Your task to perform on an android device: install app "Facebook" Image 0: 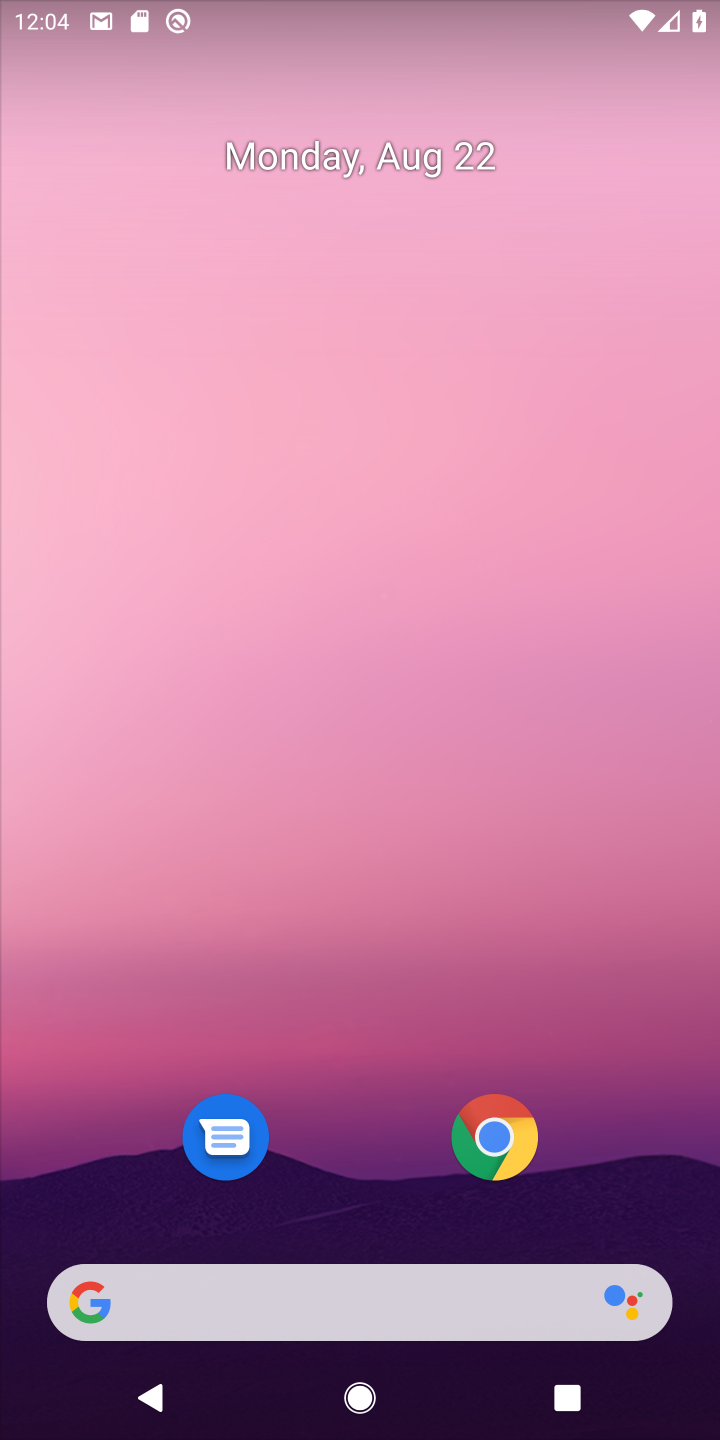
Step 0: drag from (607, 841) to (566, 148)
Your task to perform on an android device: install app "Facebook" Image 1: 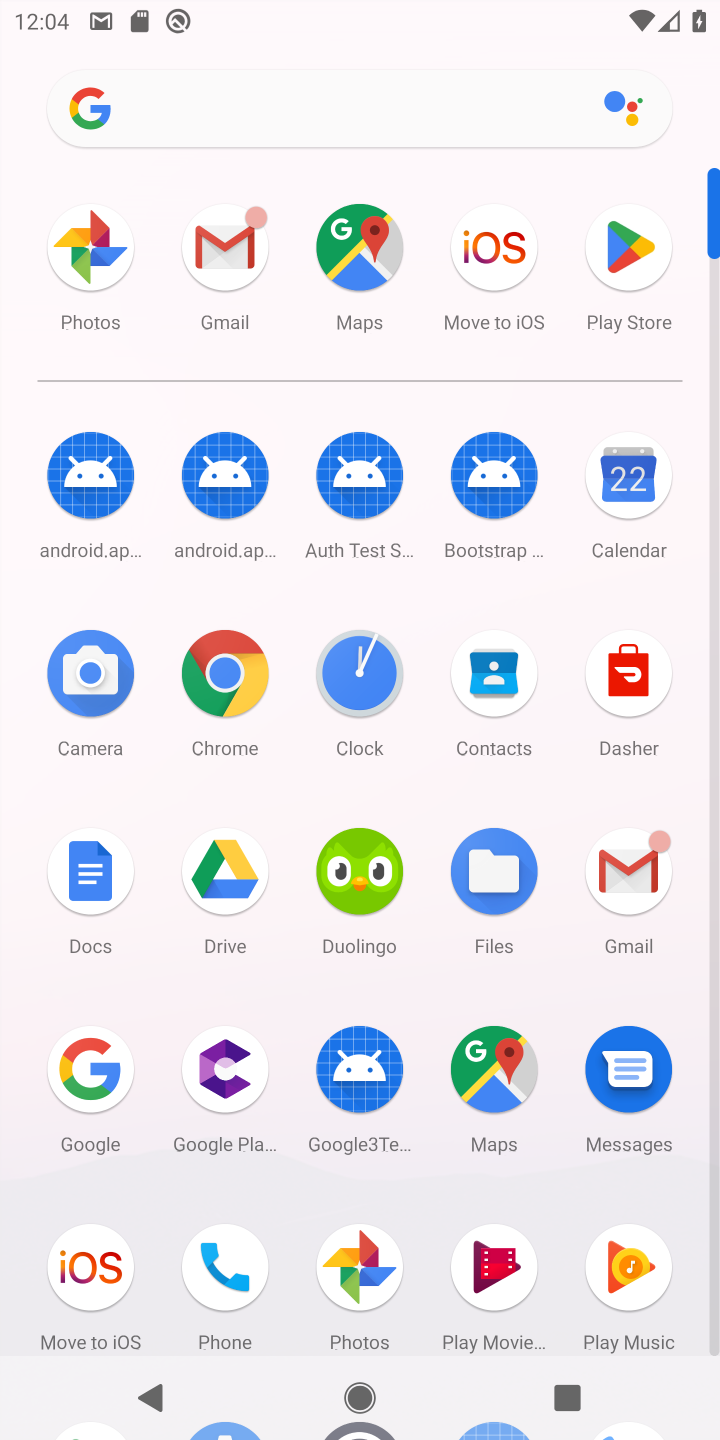
Step 1: drag from (285, 1198) to (286, 629)
Your task to perform on an android device: install app "Facebook" Image 2: 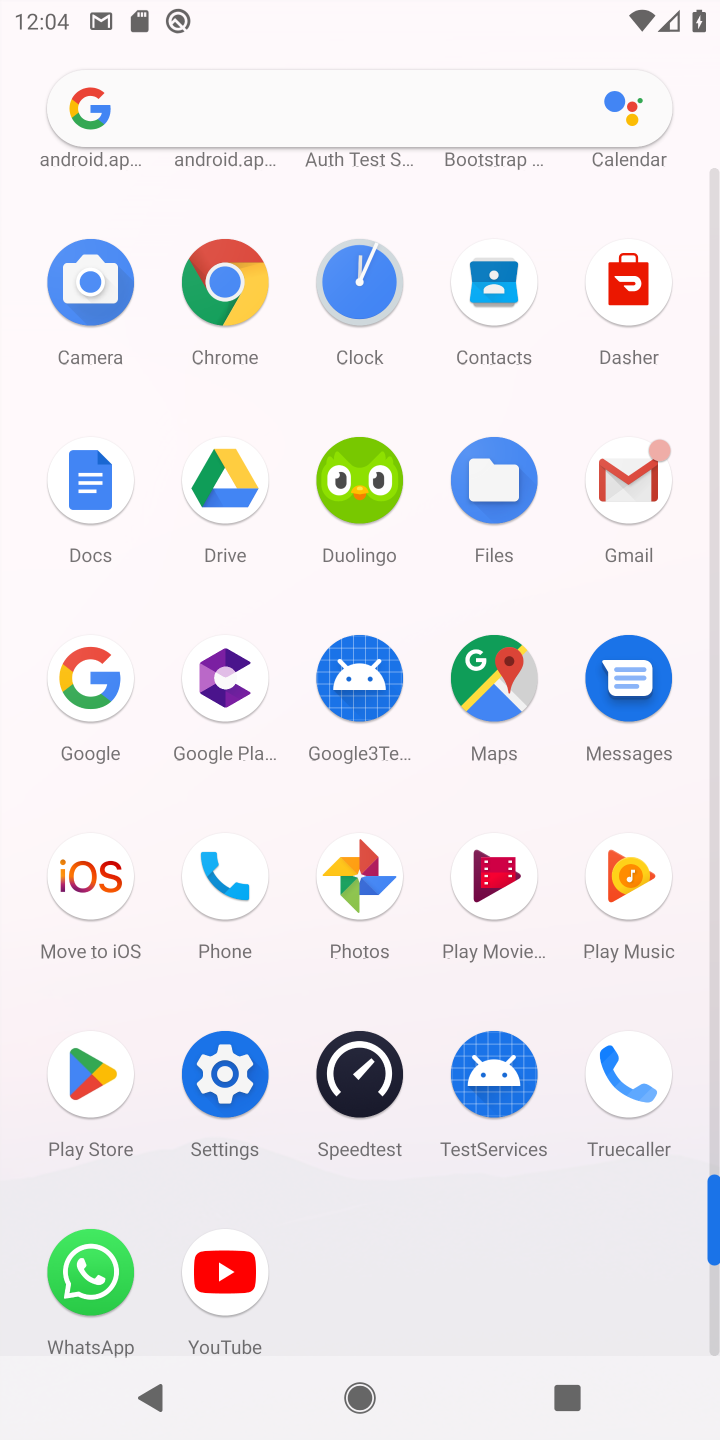
Step 2: click (95, 1075)
Your task to perform on an android device: install app "Facebook" Image 3: 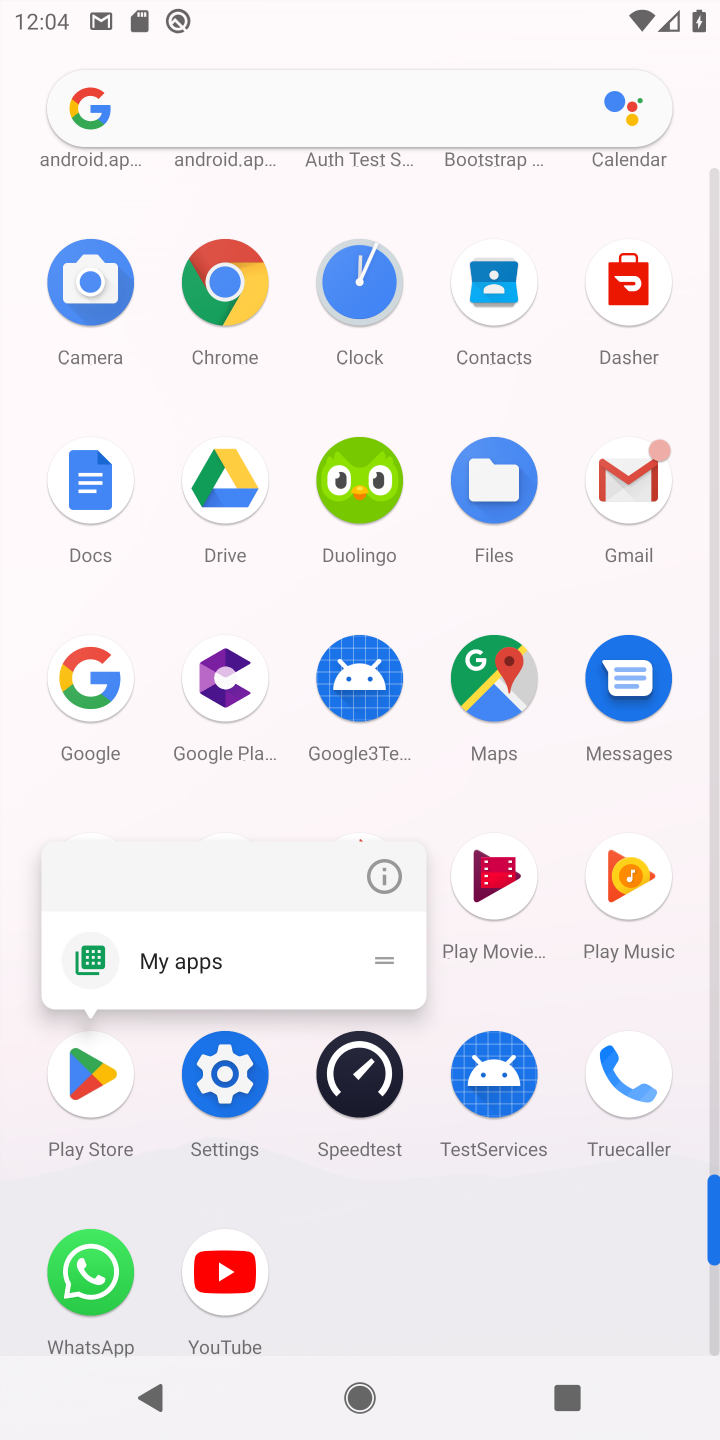
Step 3: click (86, 1075)
Your task to perform on an android device: install app "Facebook" Image 4: 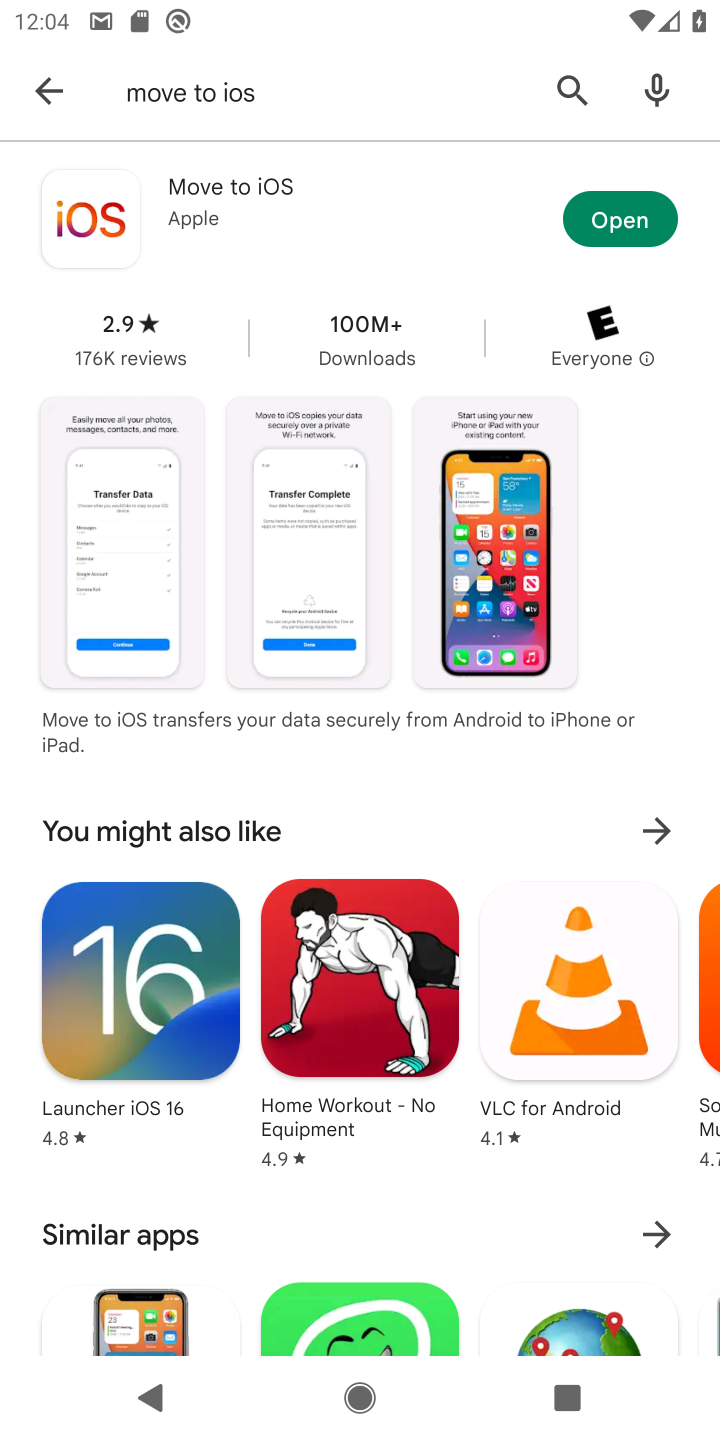
Step 4: click (569, 96)
Your task to perform on an android device: install app "Facebook" Image 5: 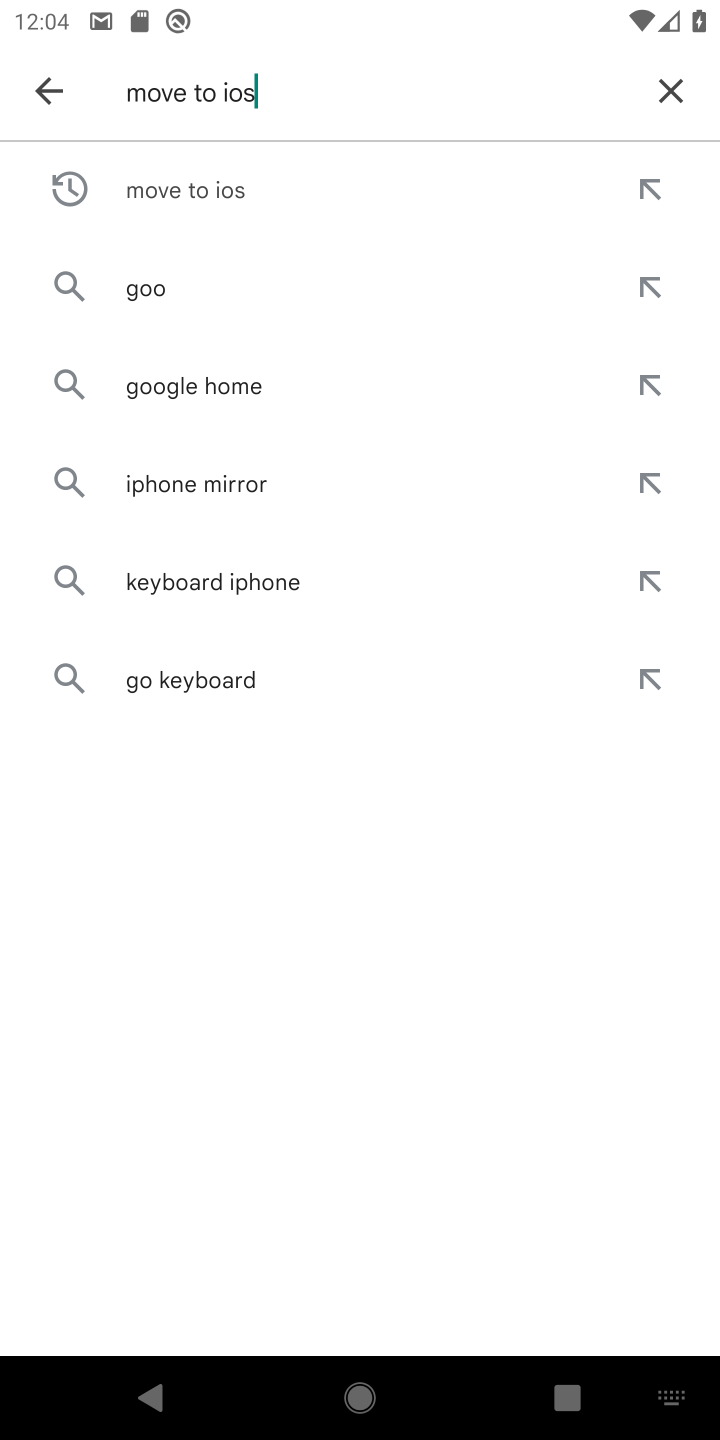
Step 5: click (672, 88)
Your task to perform on an android device: install app "Facebook" Image 6: 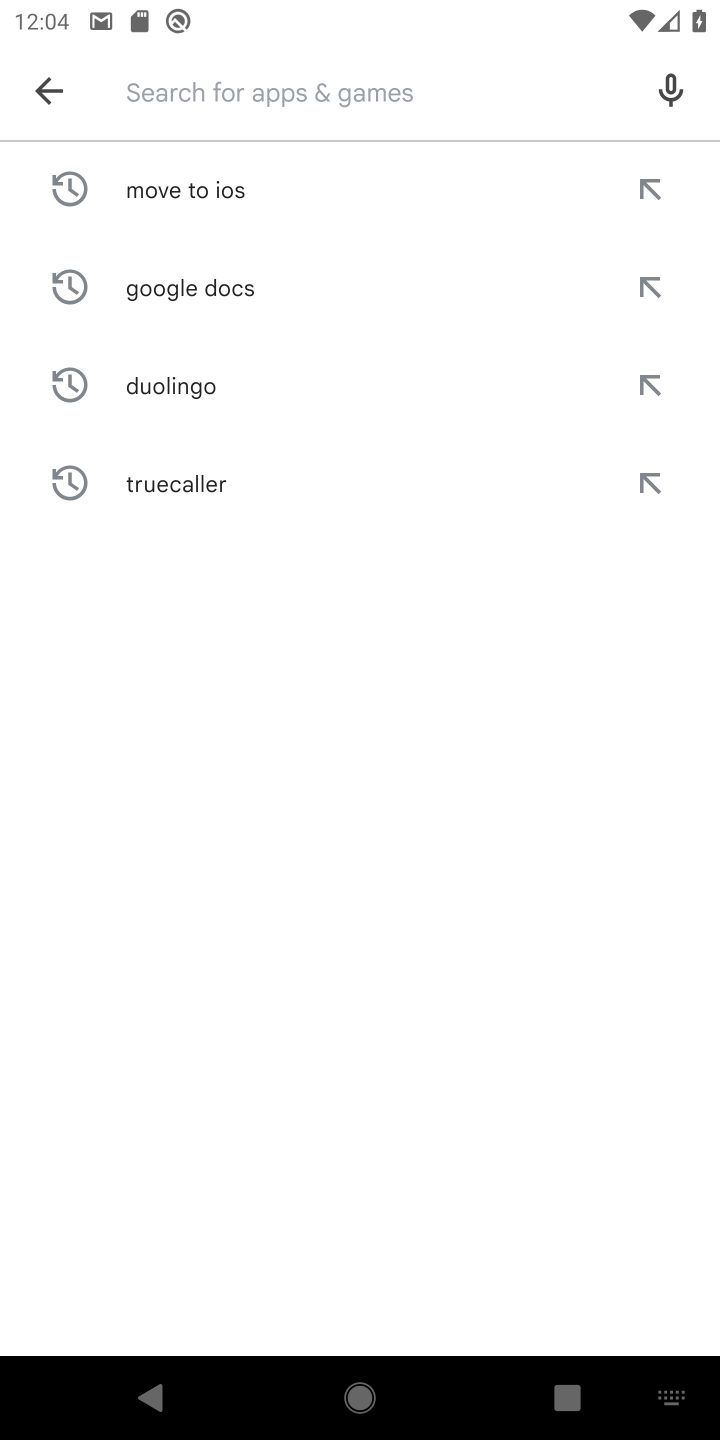
Step 6: type "Facebook"
Your task to perform on an android device: install app "Facebook" Image 7: 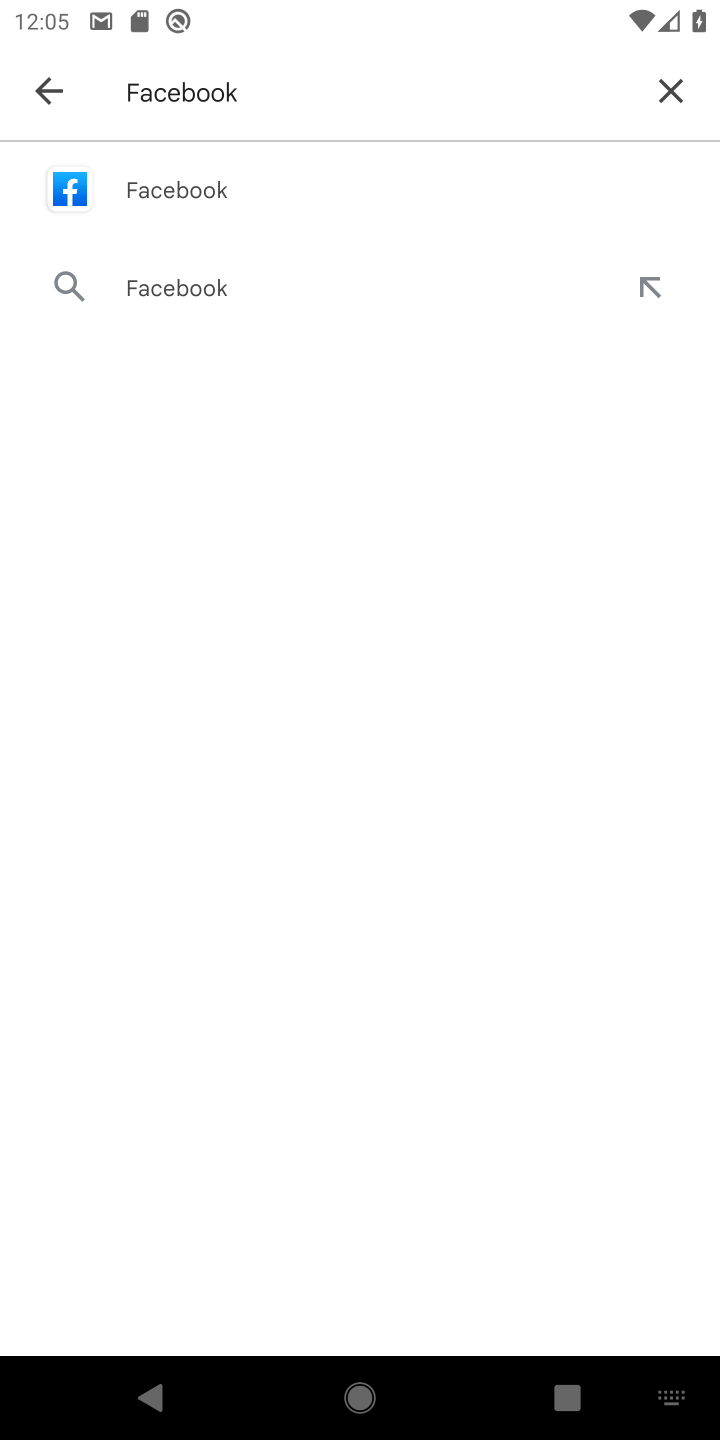
Step 7: click (195, 185)
Your task to perform on an android device: install app "Facebook" Image 8: 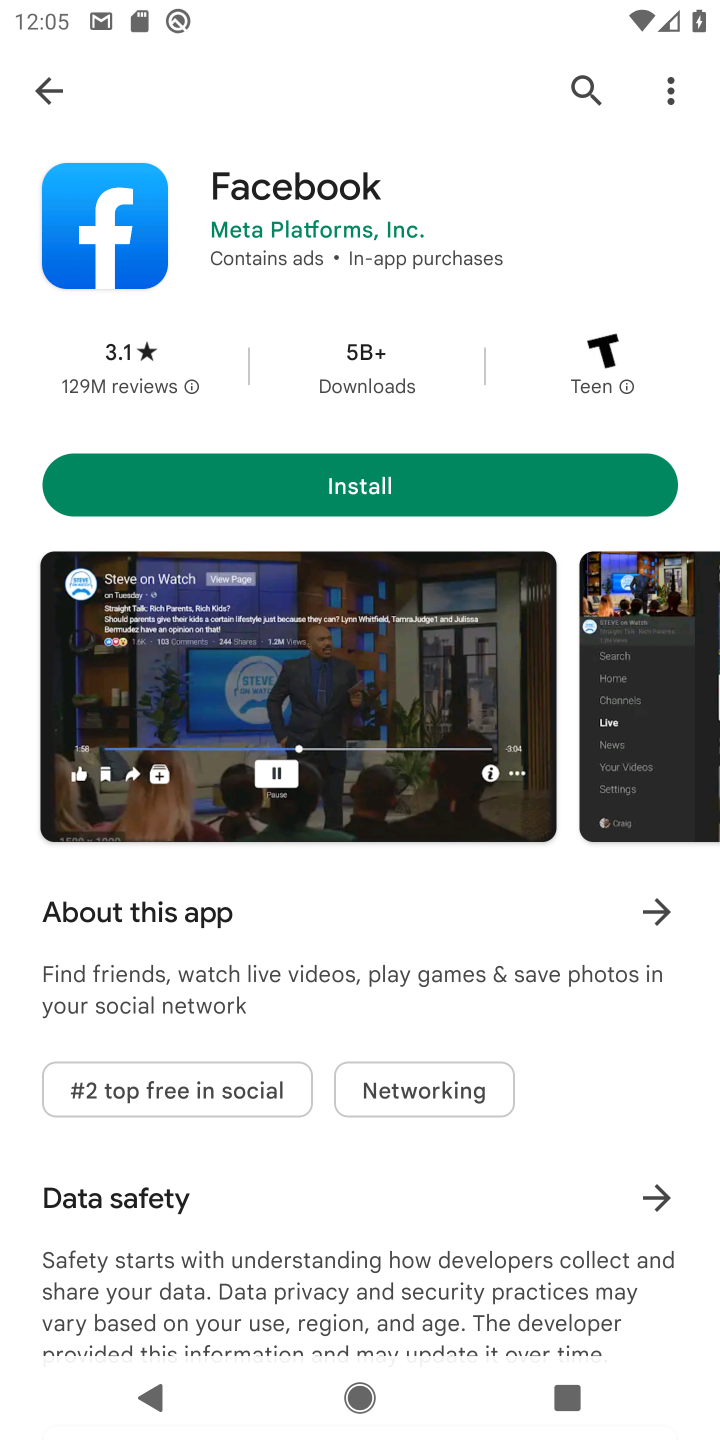
Step 8: click (369, 483)
Your task to perform on an android device: install app "Facebook" Image 9: 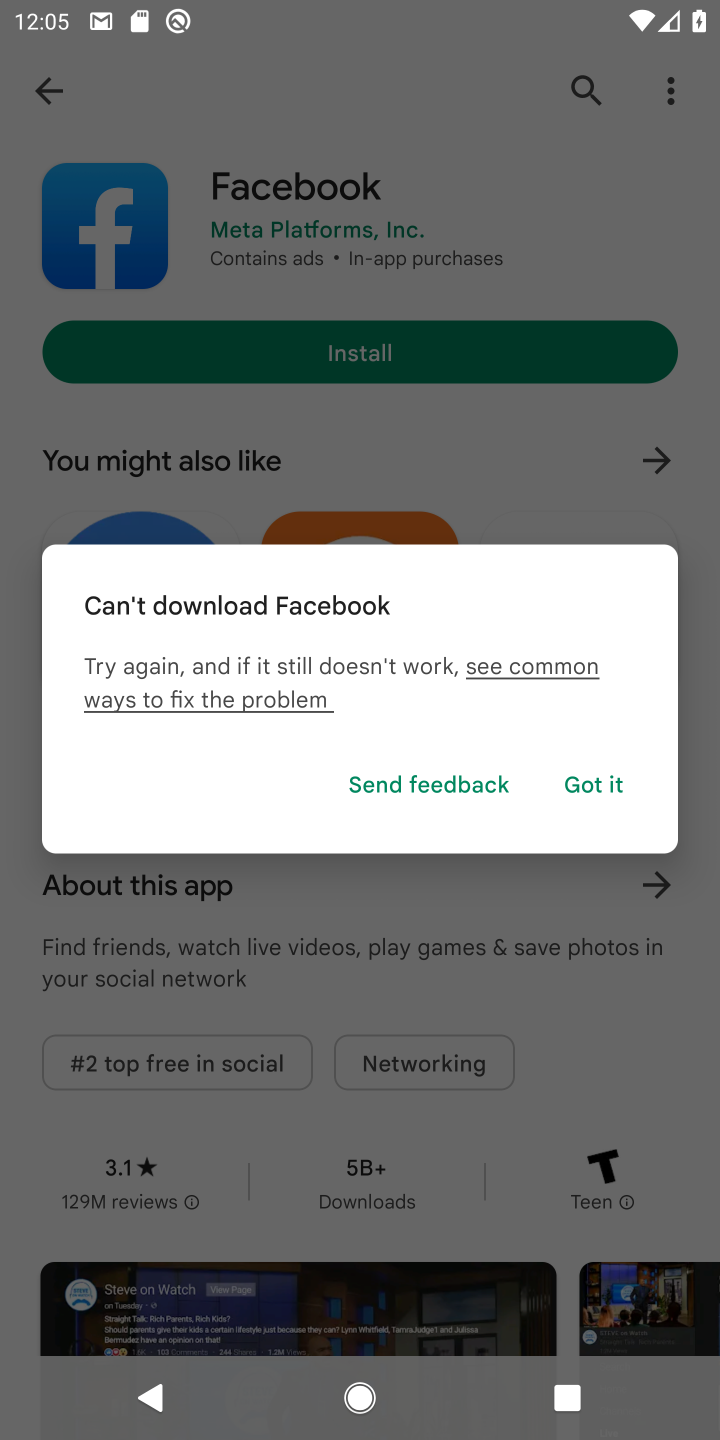
Step 9: click (603, 785)
Your task to perform on an android device: install app "Facebook" Image 10: 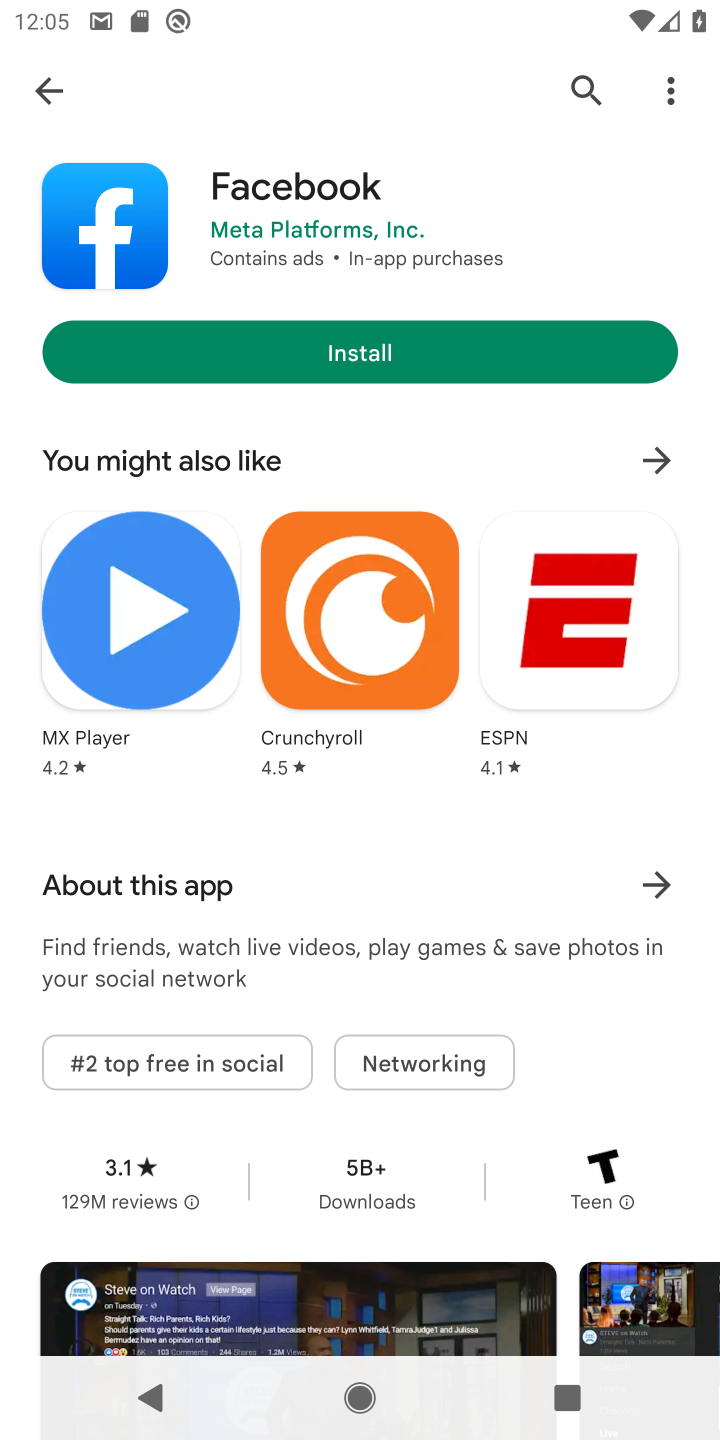
Step 10: click (356, 351)
Your task to perform on an android device: install app "Facebook" Image 11: 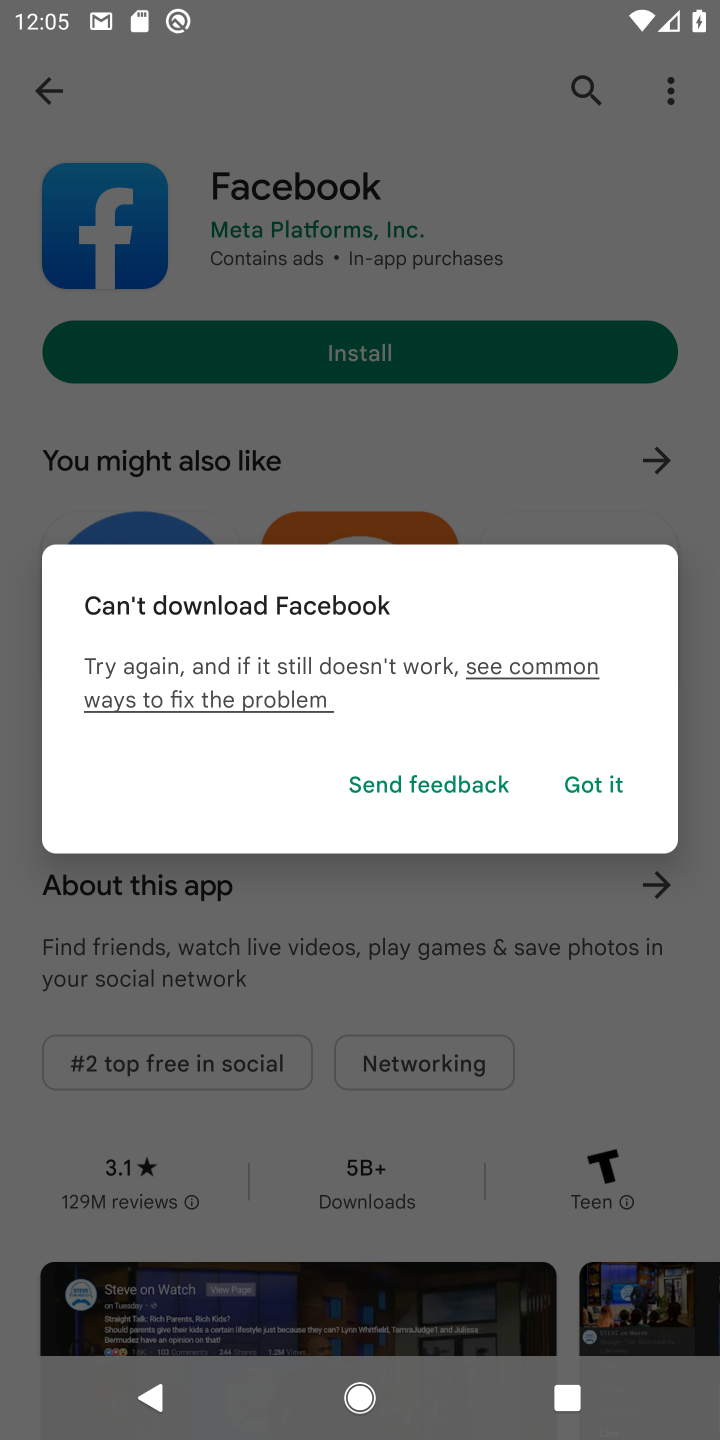
Step 11: click (587, 782)
Your task to perform on an android device: install app "Facebook" Image 12: 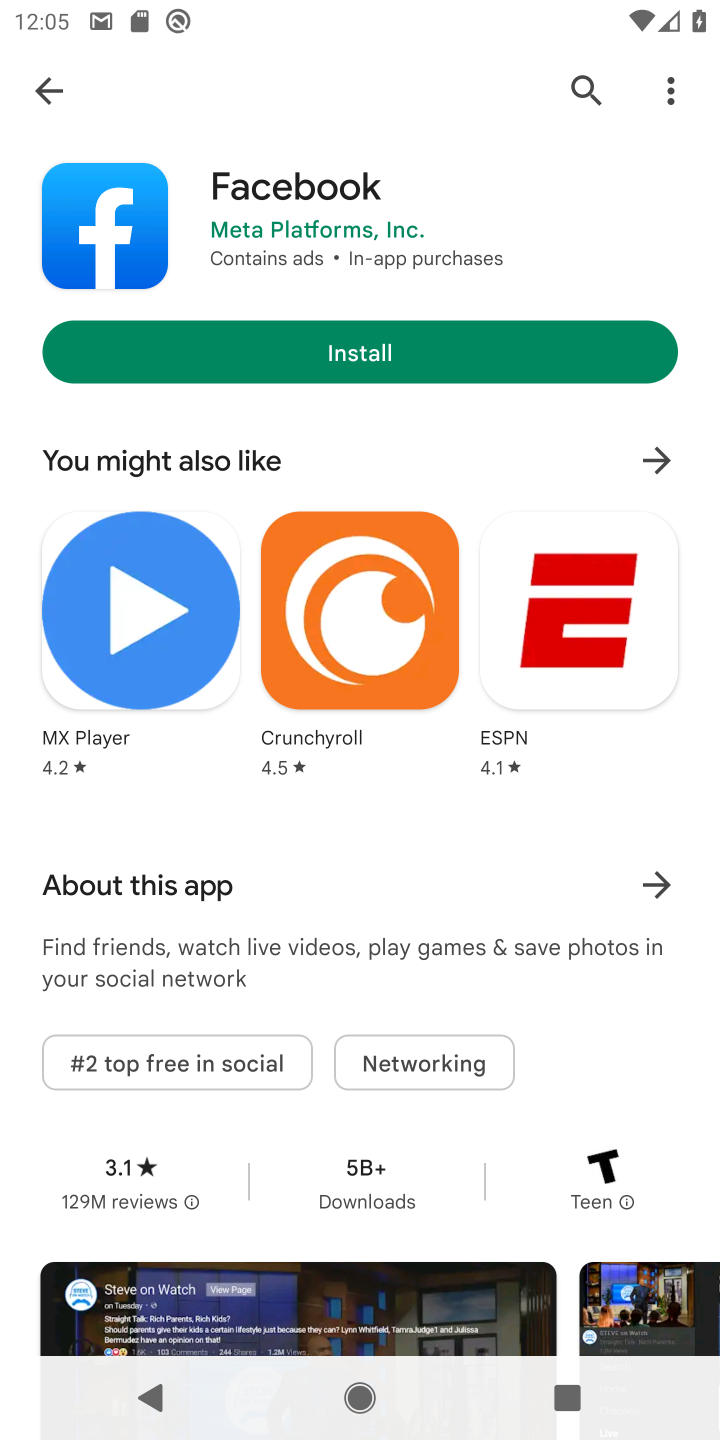
Step 12: task complete